Your task to perform on an android device: clear history in the chrome app Image 0: 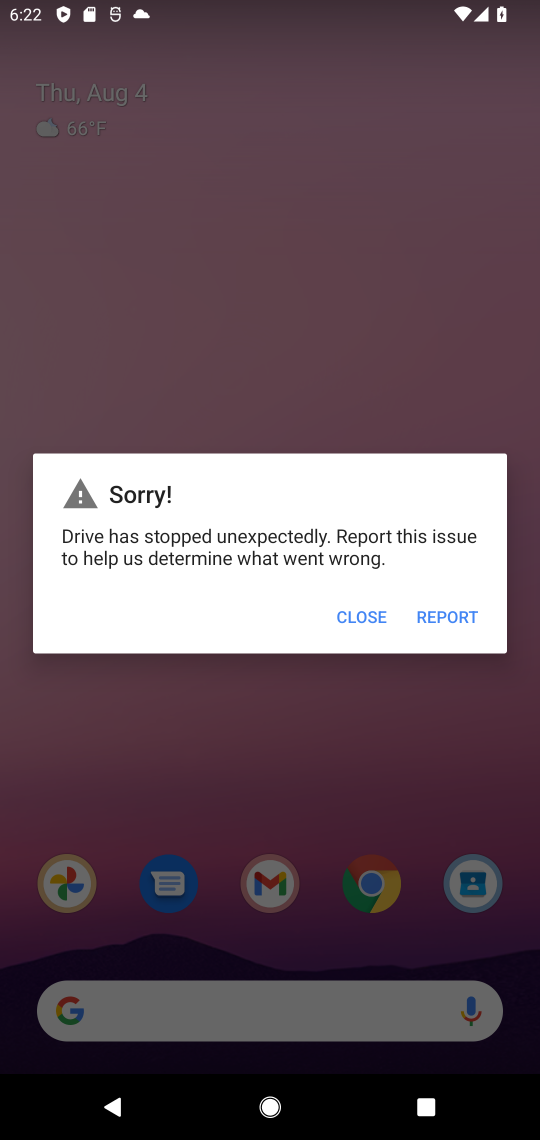
Step 0: press home button
Your task to perform on an android device: clear history in the chrome app Image 1: 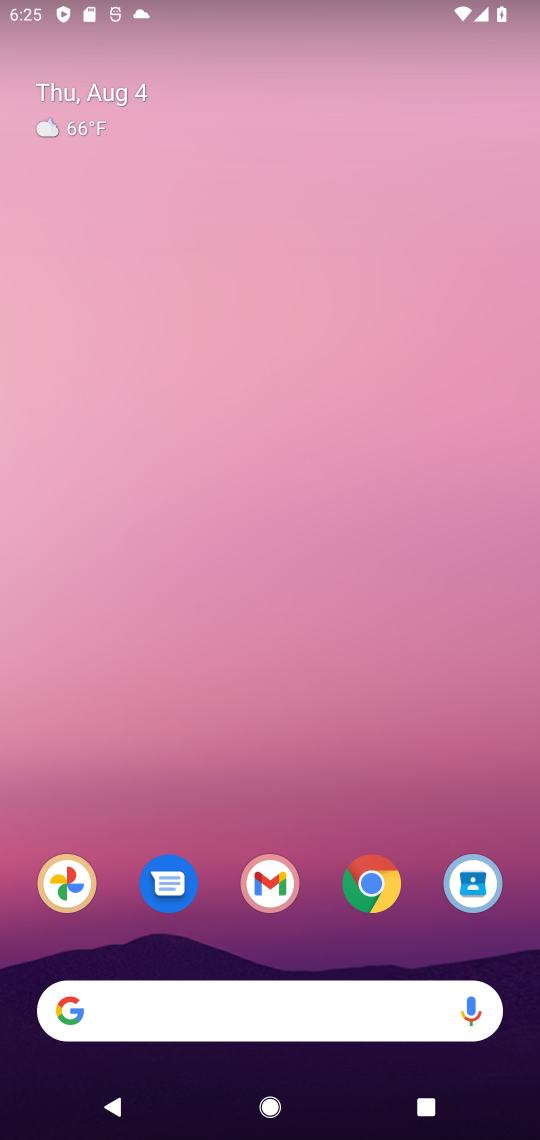
Step 1: click (379, 862)
Your task to perform on an android device: clear history in the chrome app Image 2: 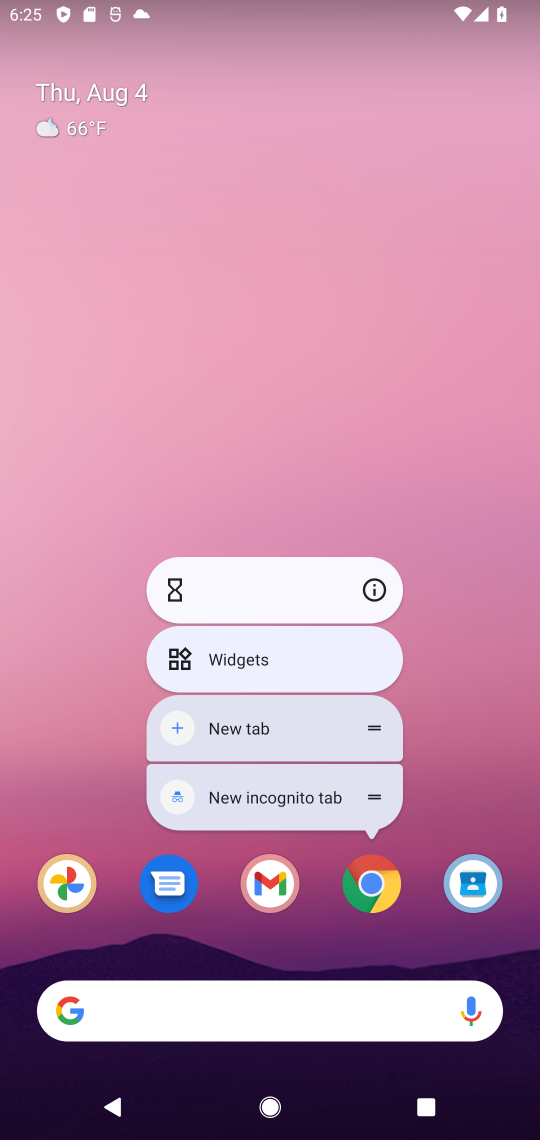
Step 2: click (339, 884)
Your task to perform on an android device: clear history in the chrome app Image 3: 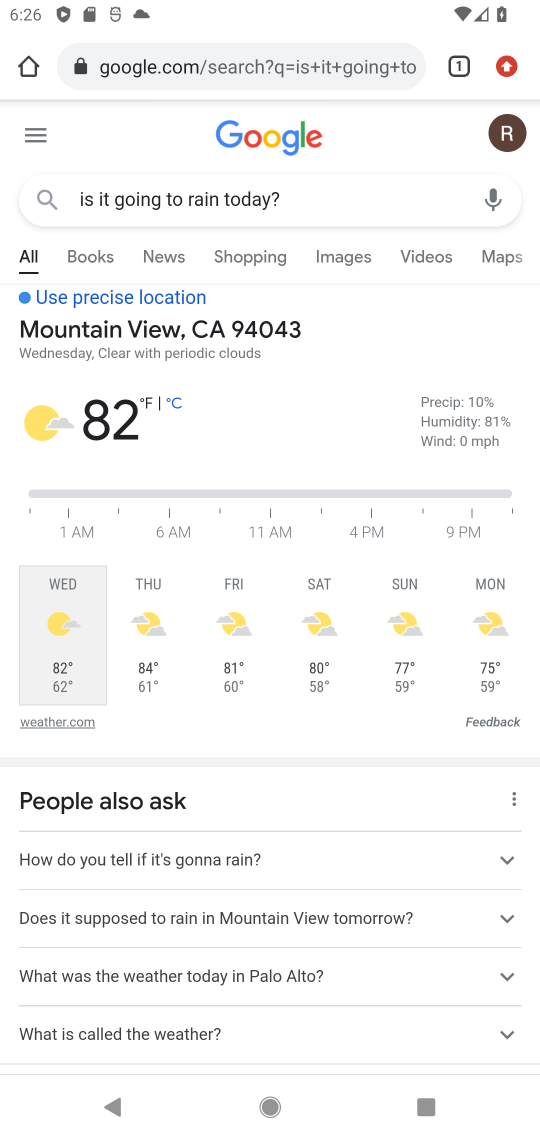
Step 3: click (505, 52)
Your task to perform on an android device: clear history in the chrome app Image 4: 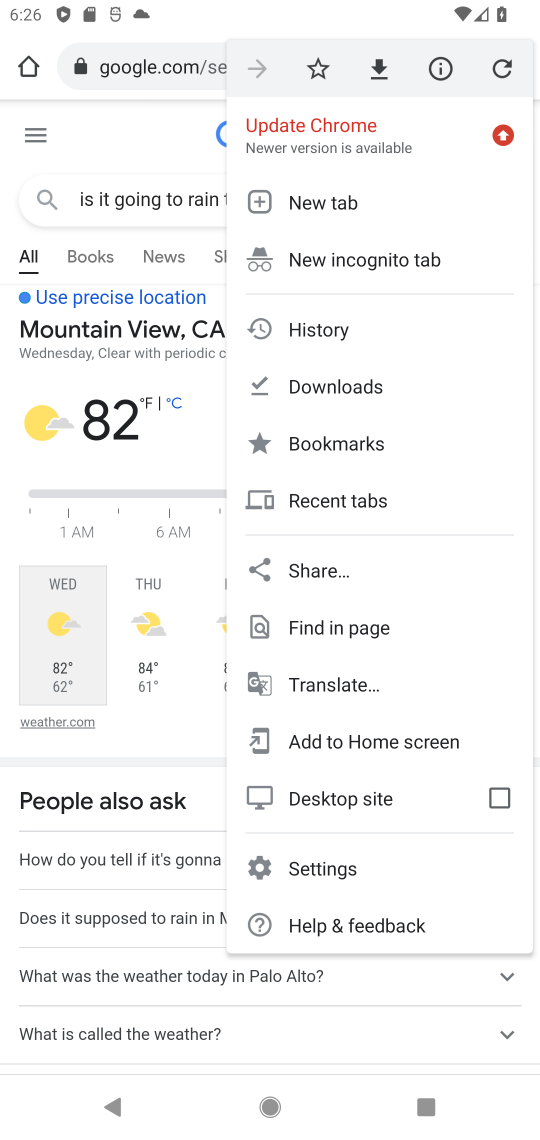
Step 4: click (332, 334)
Your task to perform on an android device: clear history in the chrome app Image 5: 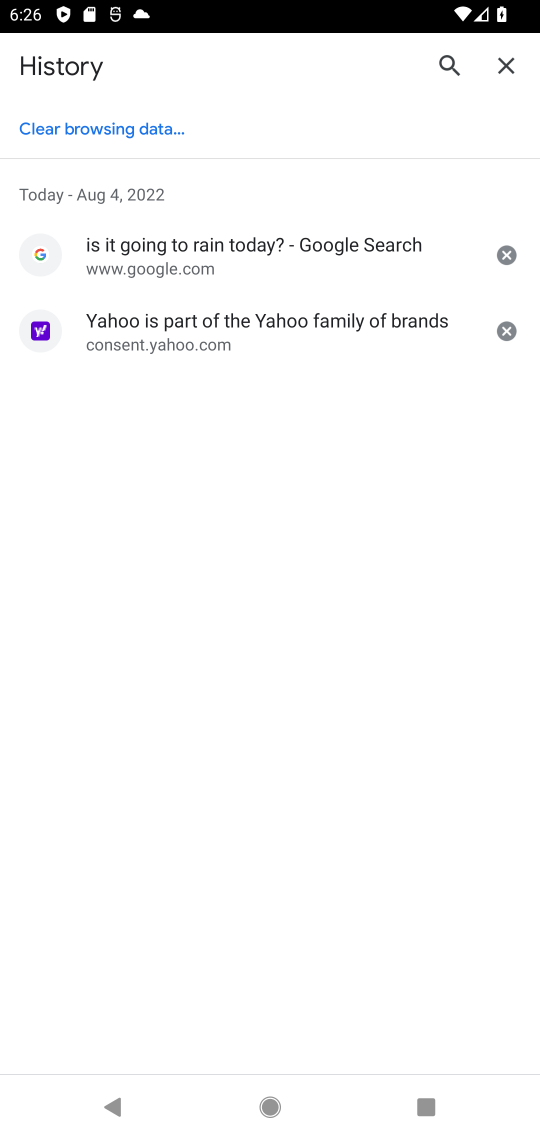
Step 5: click (84, 134)
Your task to perform on an android device: clear history in the chrome app Image 6: 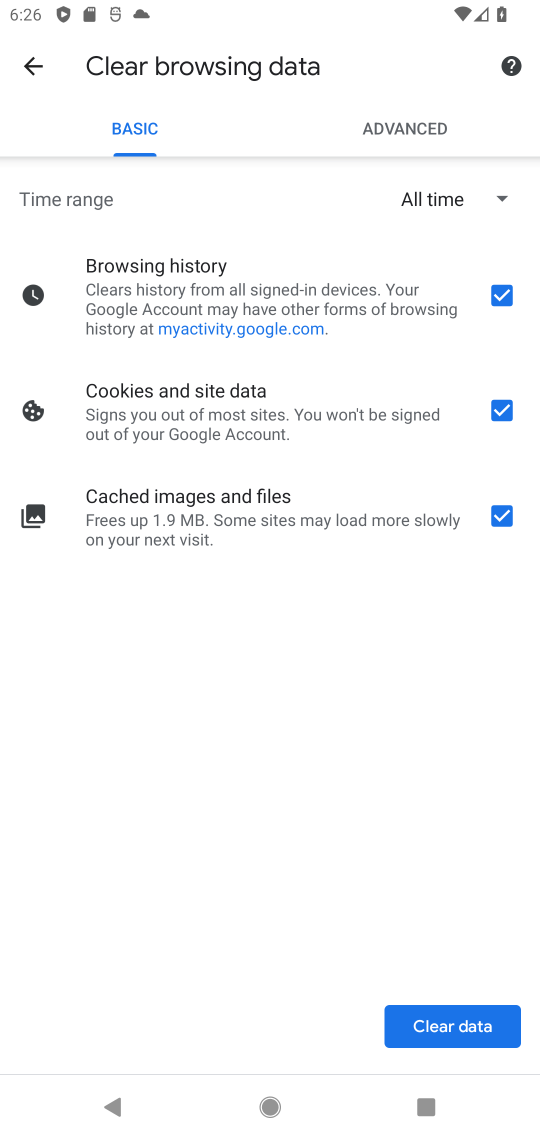
Step 6: click (438, 1040)
Your task to perform on an android device: clear history in the chrome app Image 7: 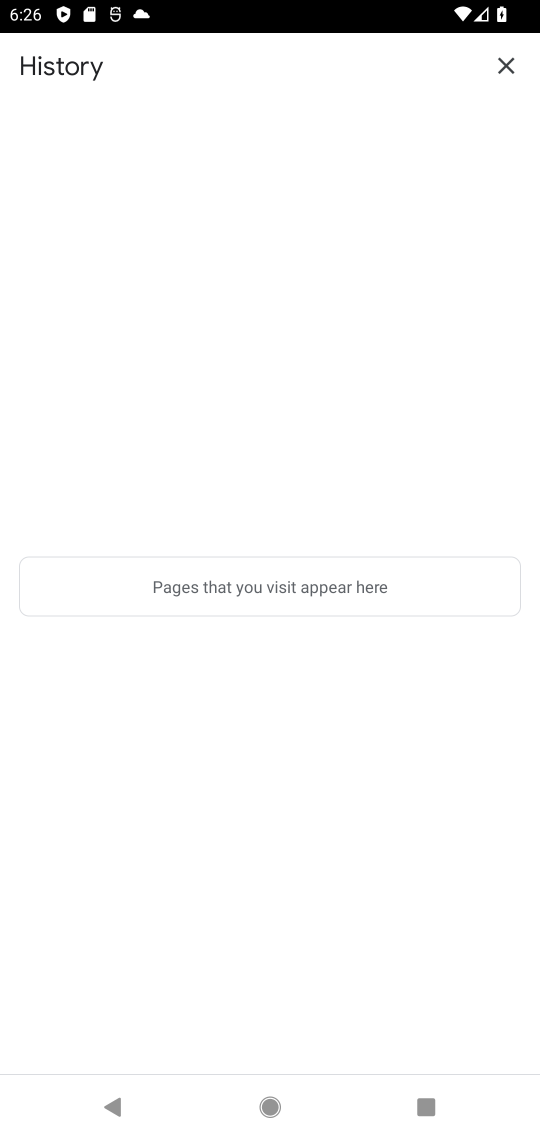
Step 7: task complete